Your task to perform on an android device: Open the calendar and show me this week's events? Image 0: 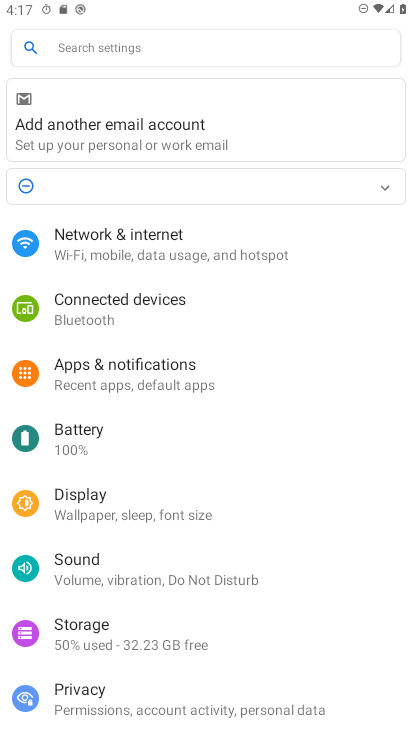
Step 0: press home button
Your task to perform on an android device: Open the calendar and show me this week's events? Image 1: 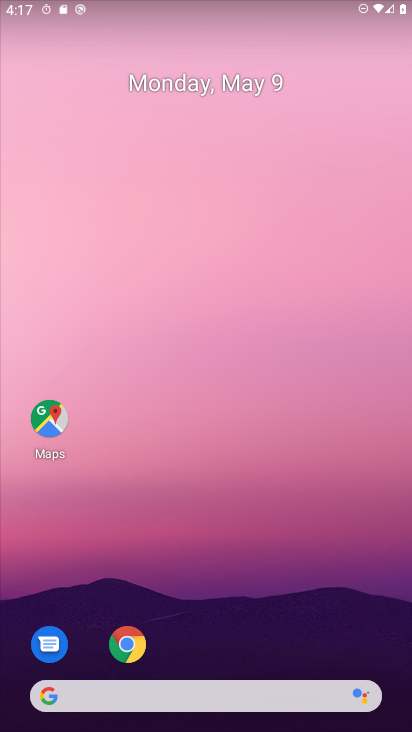
Step 1: click (118, 666)
Your task to perform on an android device: Open the calendar and show me this week's events? Image 2: 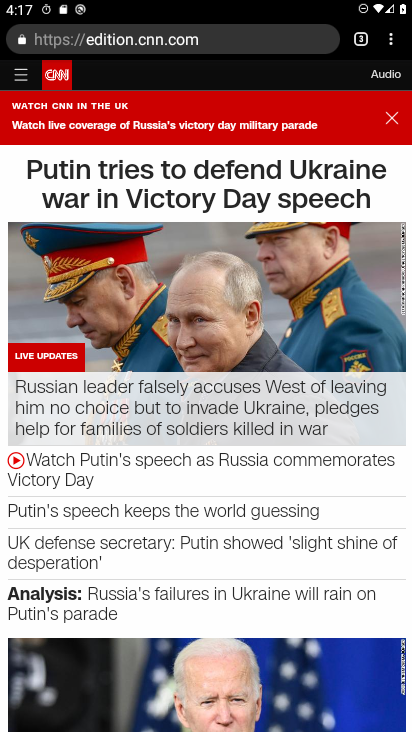
Step 2: press home button
Your task to perform on an android device: Open the calendar and show me this week's events? Image 3: 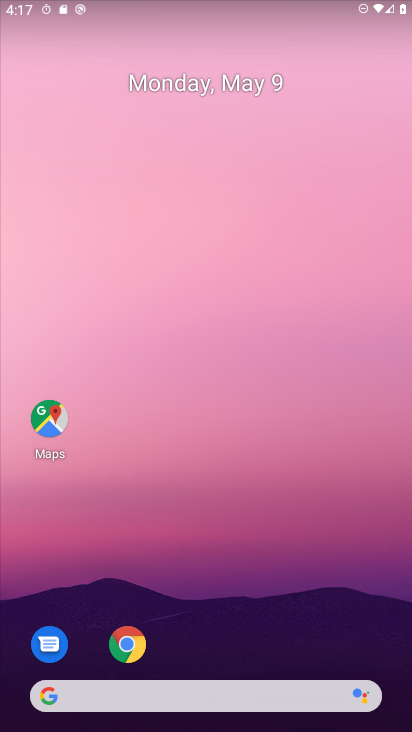
Step 3: drag from (193, 631) to (145, 82)
Your task to perform on an android device: Open the calendar and show me this week's events? Image 4: 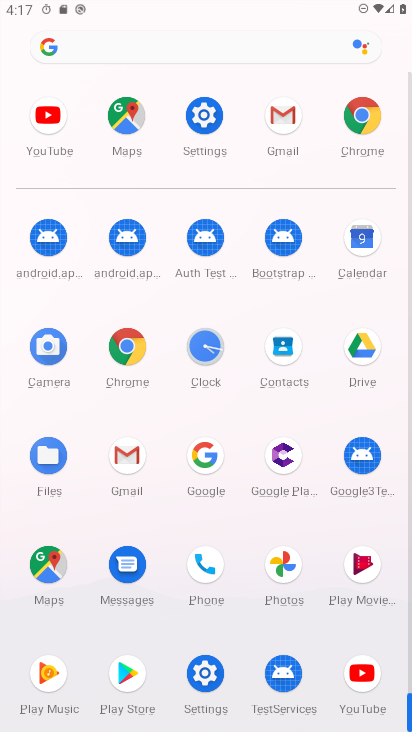
Step 4: click (356, 273)
Your task to perform on an android device: Open the calendar and show me this week's events? Image 5: 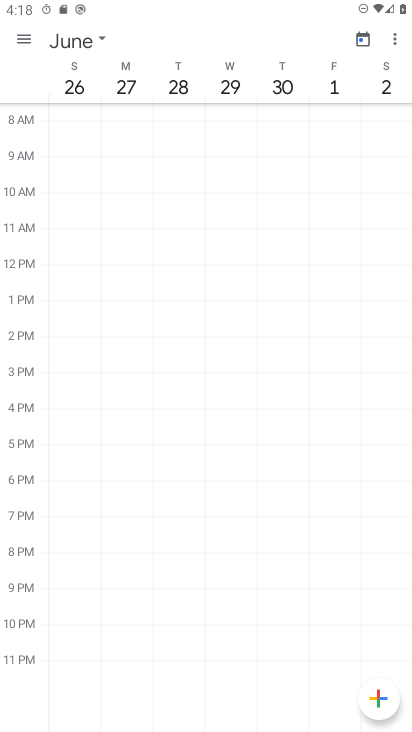
Step 5: click (69, 37)
Your task to perform on an android device: Open the calendar and show me this week's events? Image 6: 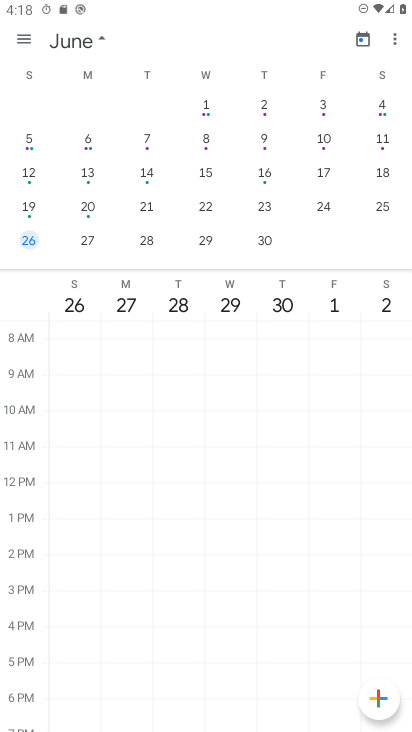
Step 6: click (22, 37)
Your task to perform on an android device: Open the calendar and show me this week's events? Image 7: 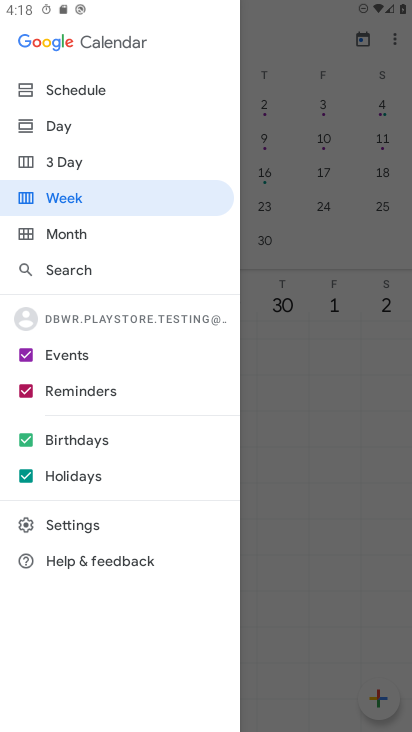
Step 7: click (20, 37)
Your task to perform on an android device: Open the calendar and show me this week's events? Image 8: 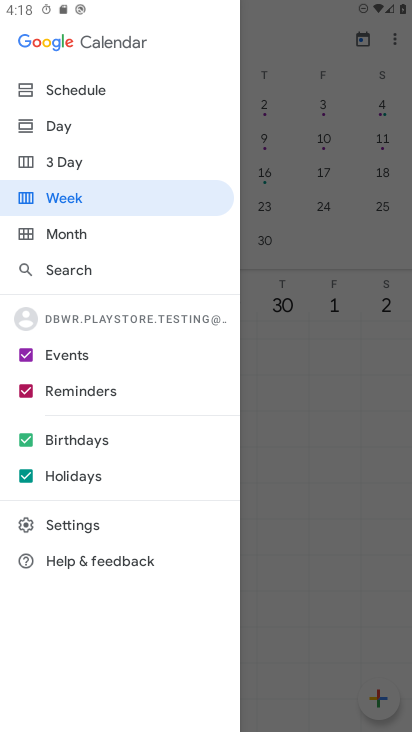
Step 8: click (60, 201)
Your task to perform on an android device: Open the calendar and show me this week's events? Image 9: 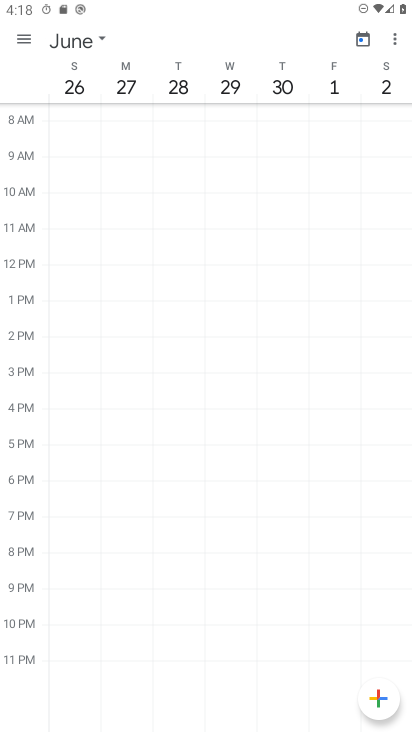
Step 9: click (63, 41)
Your task to perform on an android device: Open the calendar and show me this week's events? Image 10: 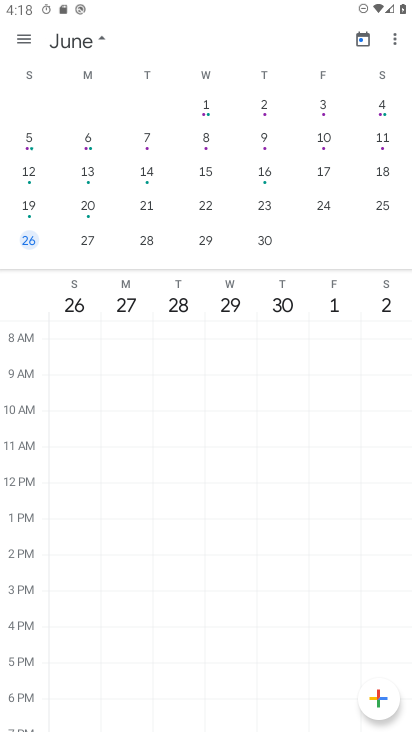
Step 10: drag from (32, 174) to (403, 145)
Your task to perform on an android device: Open the calendar and show me this week's events? Image 11: 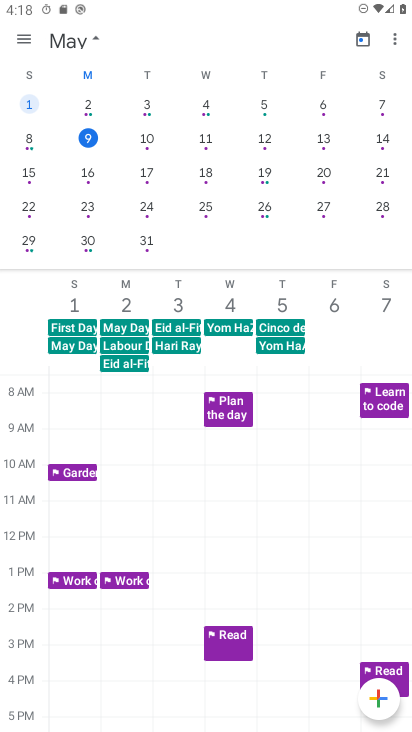
Step 11: click (33, 146)
Your task to perform on an android device: Open the calendar and show me this week's events? Image 12: 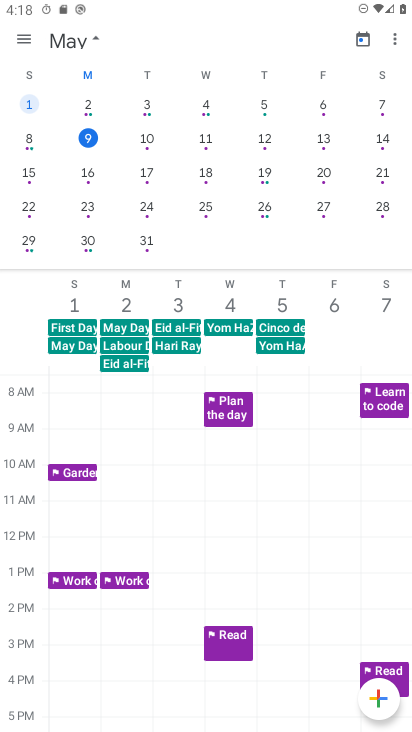
Step 12: click (33, 146)
Your task to perform on an android device: Open the calendar and show me this week's events? Image 13: 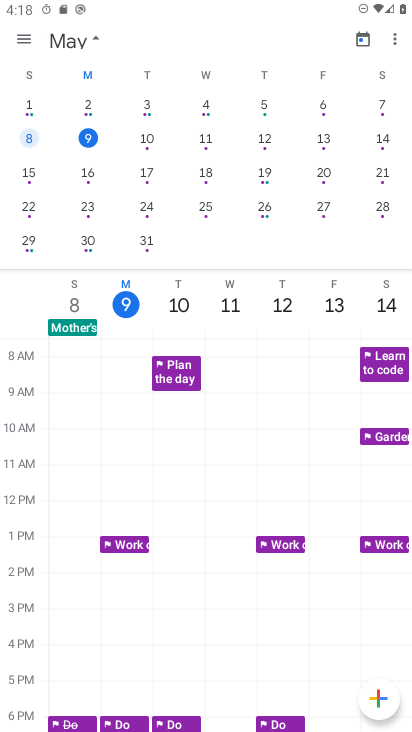
Step 13: task complete